Your task to perform on an android device: turn off translation in the chrome app Image 0: 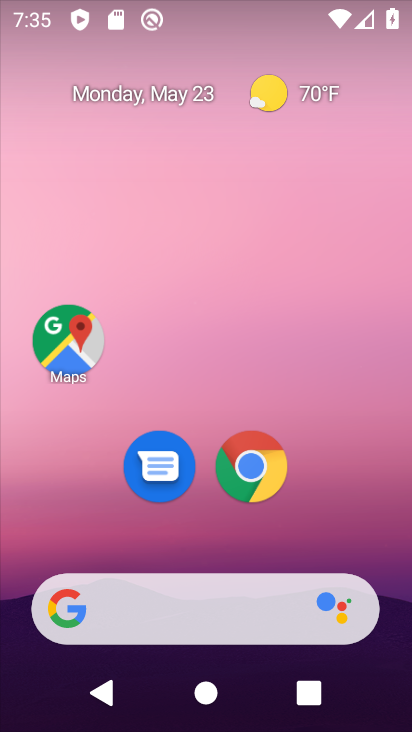
Step 0: click (272, 488)
Your task to perform on an android device: turn off translation in the chrome app Image 1: 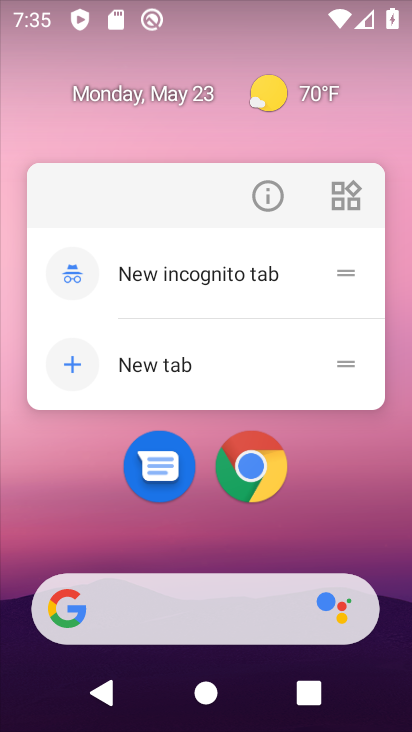
Step 1: click (272, 487)
Your task to perform on an android device: turn off translation in the chrome app Image 2: 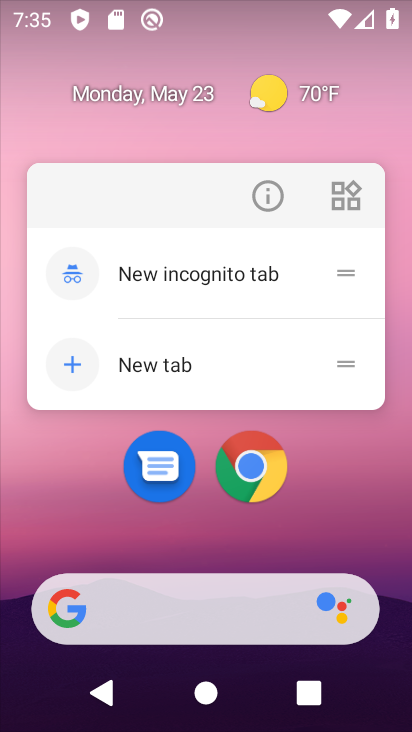
Step 2: click (244, 468)
Your task to perform on an android device: turn off translation in the chrome app Image 3: 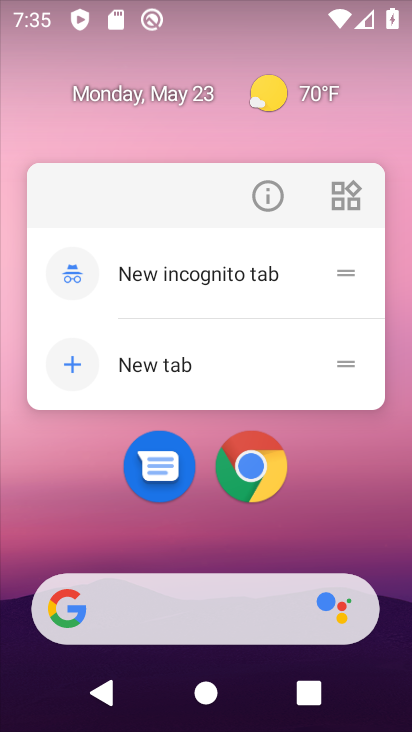
Step 3: click (257, 435)
Your task to perform on an android device: turn off translation in the chrome app Image 4: 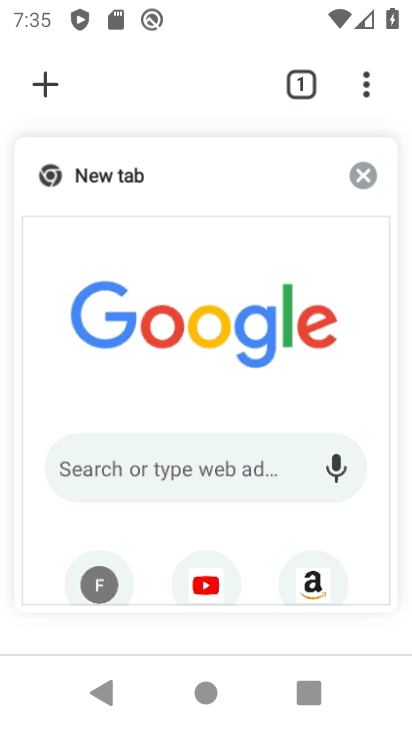
Step 4: click (232, 413)
Your task to perform on an android device: turn off translation in the chrome app Image 5: 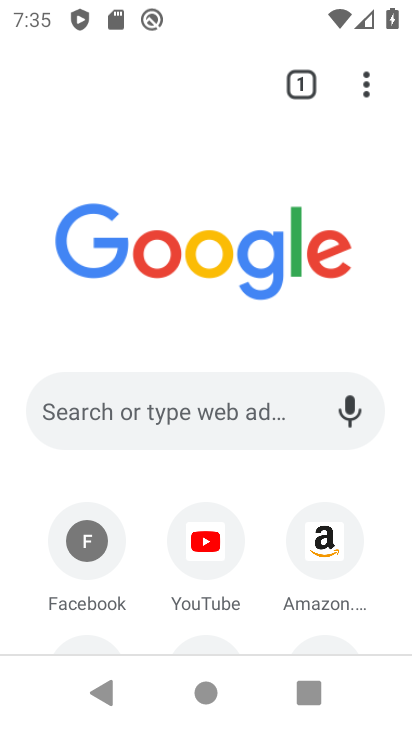
Step 5: click (360, 94)
Your task to perform on an android device: turn off translation in the chrome app Image 6: 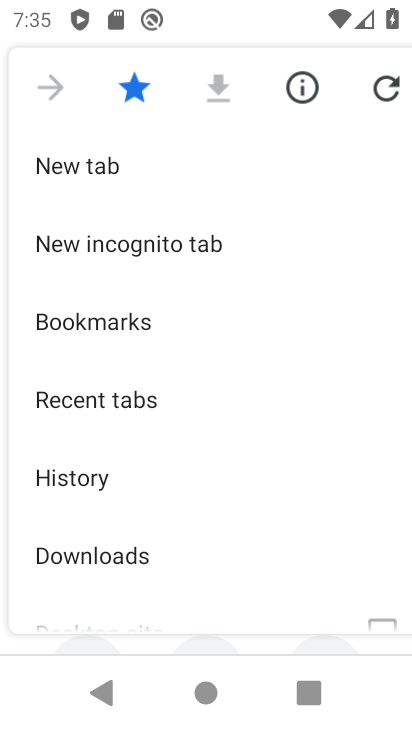
Step 6: task complete